Your task to perform on an android device: toggle sleep mode Image 0: 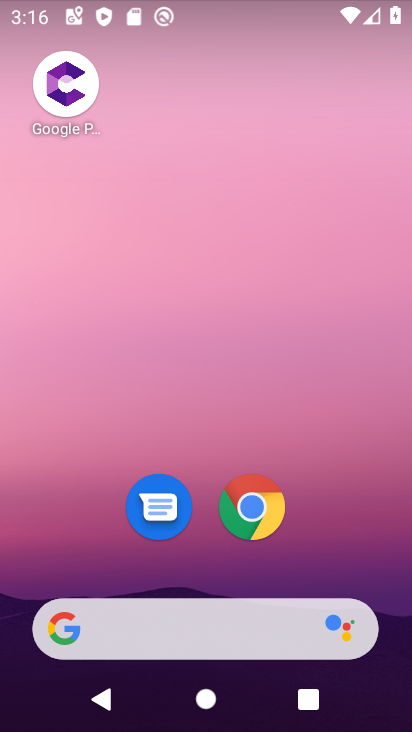
Step 0: drag from (385, 474) to (369, 151)
Your task to perform on an android device: toggle sleep mode Image 1: 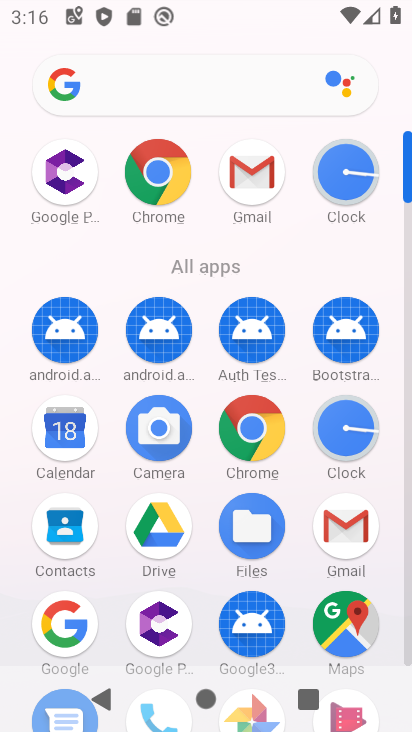
Step 1: drag from (295, 560) to (309, 324)
Your task to perform on an android device: toggle sleep mode Image 2: 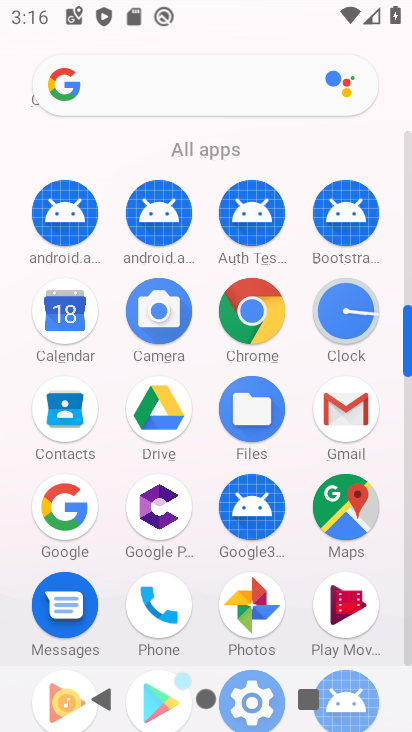
Step 2: drag from (306, 533) to (291, 351)
Your task to perform on an android device: toggle sleep mode Image 3: 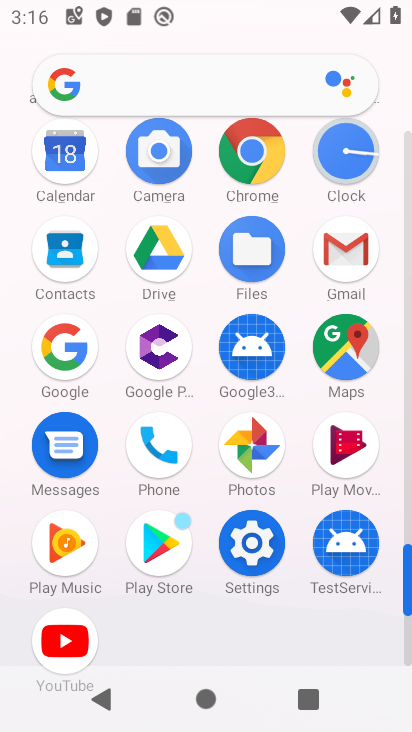
Step 3: click (240, 536)
Your task to perform on an android device: toggle sleep mode Image 4: 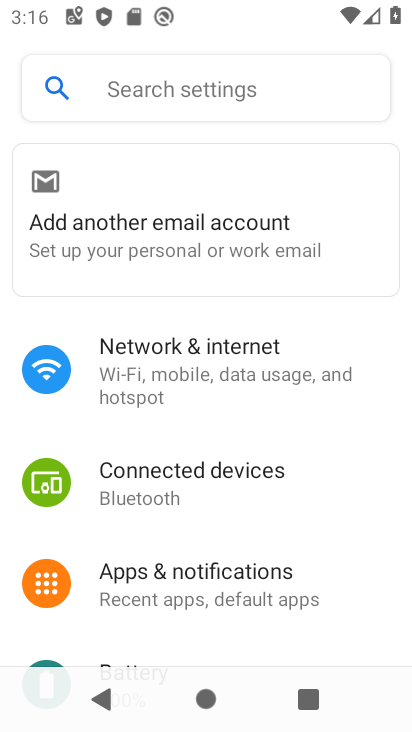
Step 4: click (212, 82)
Your task to perform on an android device: toggle sleep mode Image 5: 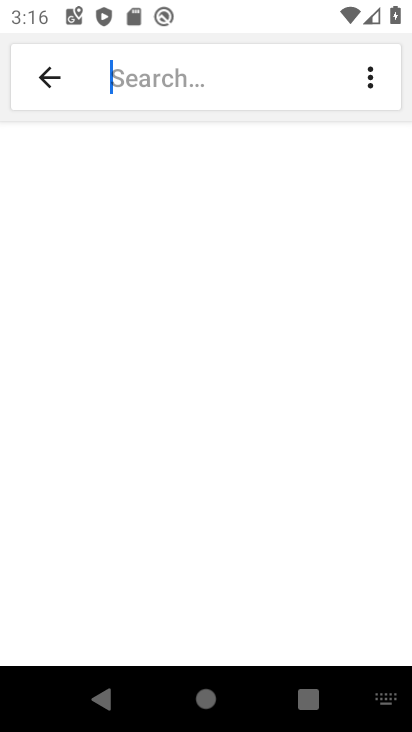
Step 5: type "sleep mode"
Your task to perform on an android device: toggle sleep mode Image 6: 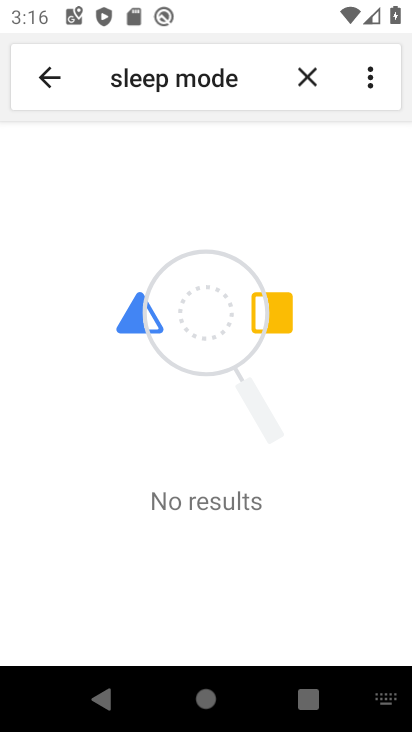
Step 6: task complete